Your task to perform on an android device: delete a single message in the gmail app Image 0: 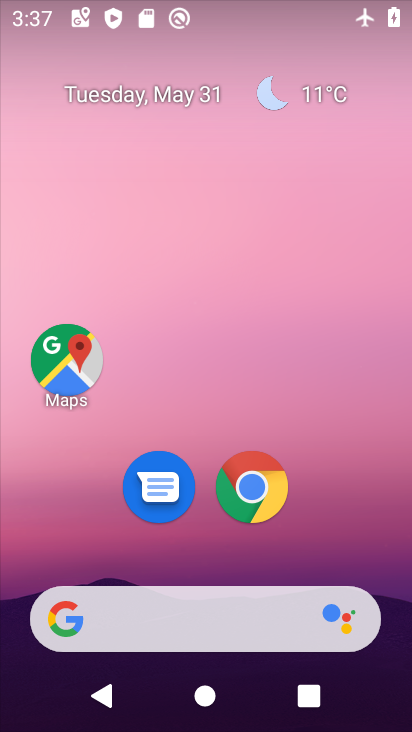
Step 0: drag from (327, 546) to (253, 0)
Your task to perform on an android device: delete a single message in the gmail app Image 1: 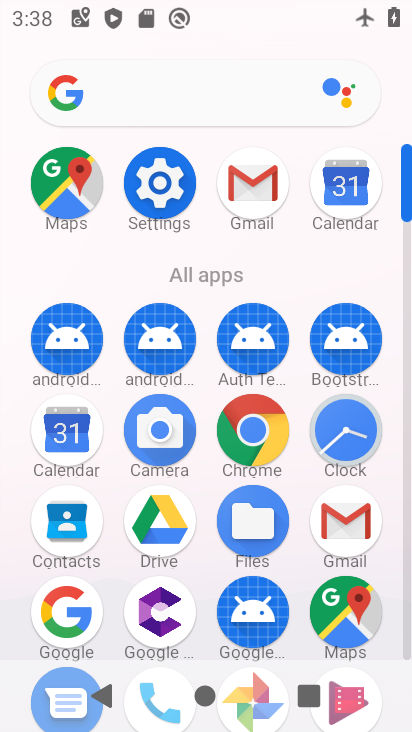
Step 1: click (251, 181)
Your task to perform on an android device: delete a single message in the gmail app Image 2: 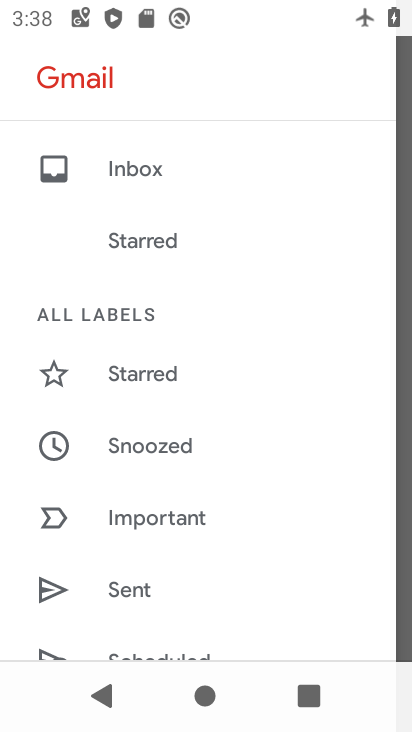
Step 2: click (166, 178)
Your task to perform on an android device: delete a single message in the gmail app Image 3: 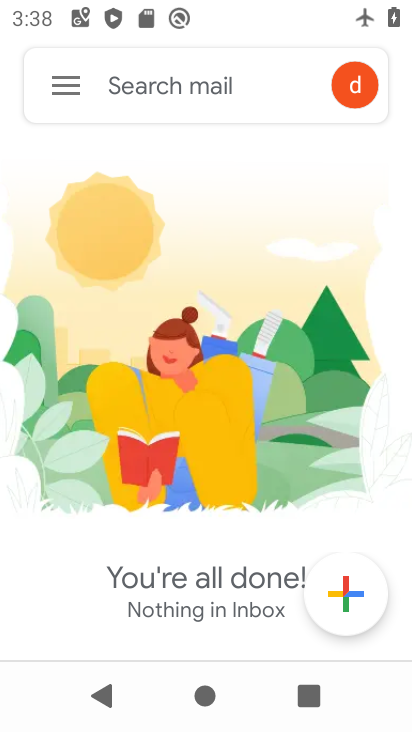
Step 3: click (59, 86)
Your task to perform on an android device: delete a single message in the gmail app Image 4: 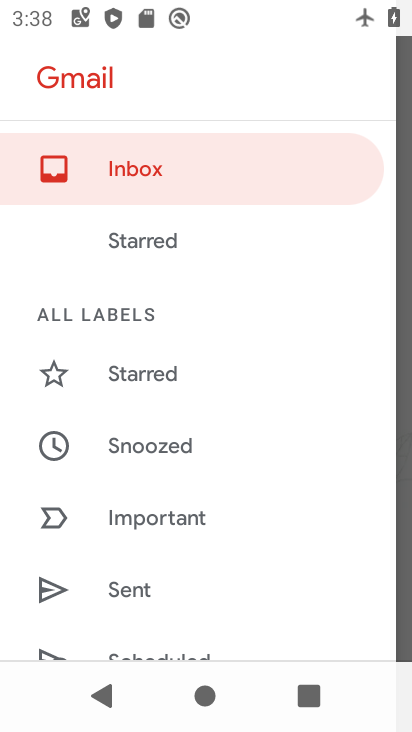
Step 4: drag from (139, 411) to (173, 333)
Your task to perform on an android device: delete a single message in the gmail app Image 5: 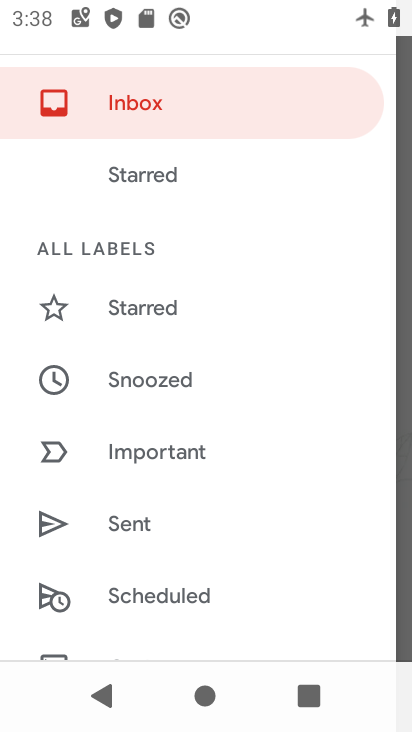
Step 5: drag from (162, 434) to (191, 363)
Your task to perform on an android device: delete a single message in the gmail app Image 6: 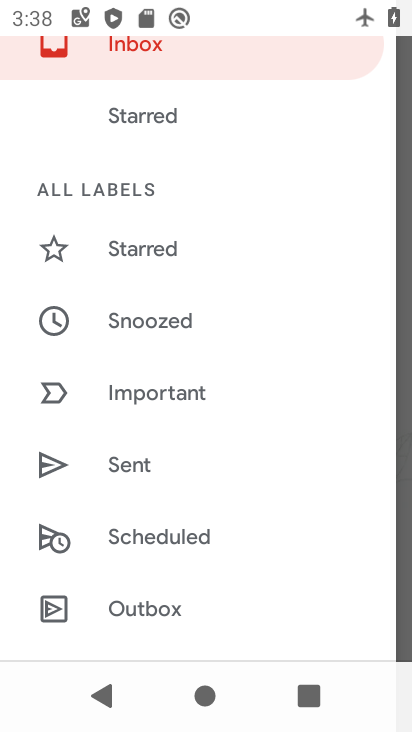
Step 6: drag from (149, 428) to (192, 370)
Your task to perform on an android device: delete a single message in the gmail app Image 7: 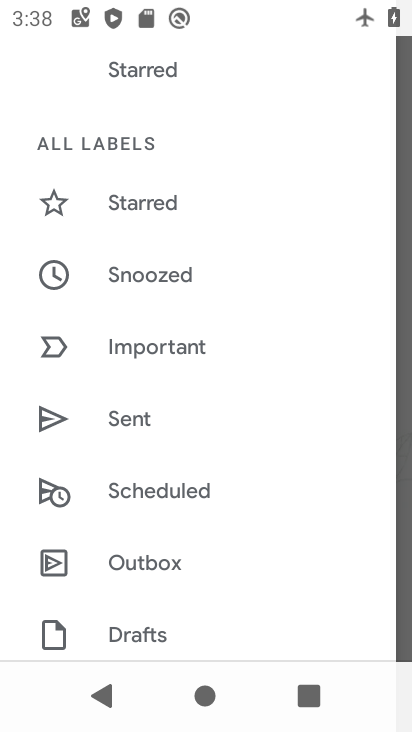
Step 7: drag from (143, 444) to (185, 360)
Your task to perform on an android device: delete a single message in the gmail app Image 8: 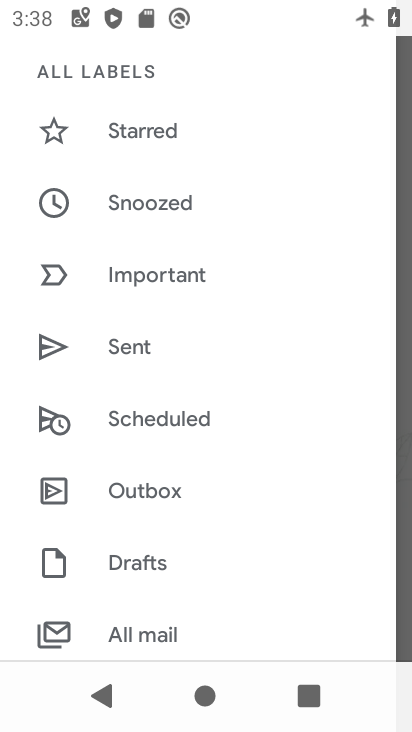
Step 8: drag from (141, 457) to (196, 378)
Your task to perform on an android device: delete a single message in the gmail app Image 9: 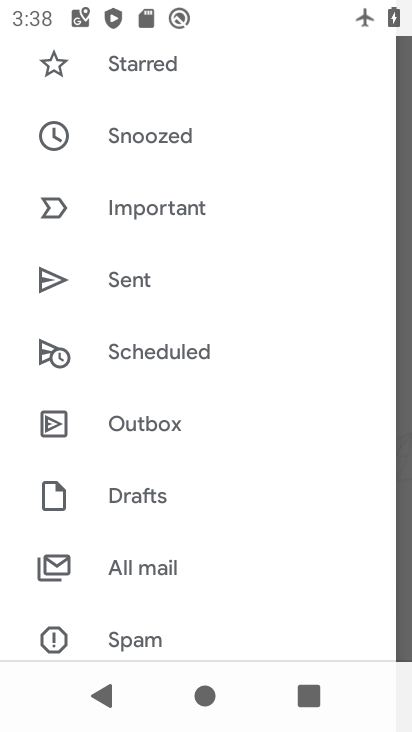
Step 9: click (166, 576)
Your task to perform on an android device: delete a single message in the gmail app Image 10: 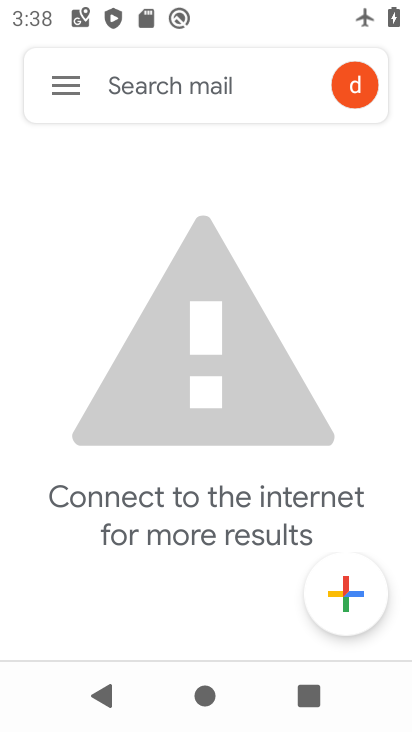
Step 10: click (51, 97)
Your task to perform on an android device: delete a single message in the gmail app Image 11: 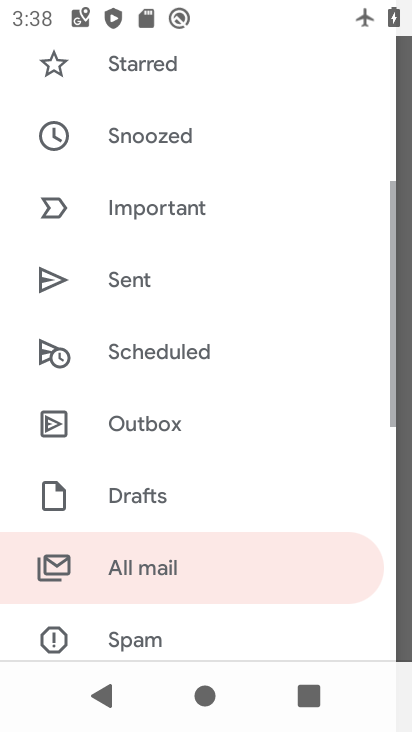
Step 11: task complete